Your task to perform on an android device: Open privacy settings Image 0: 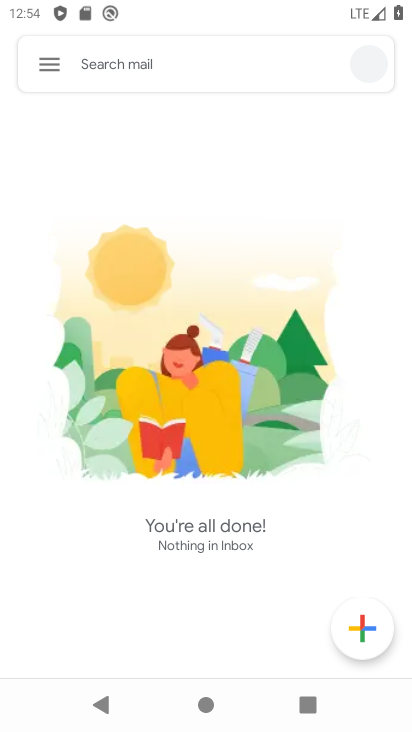
Step 0: press home button
Your task to perform on an android device: Open privacy settings Image 1: 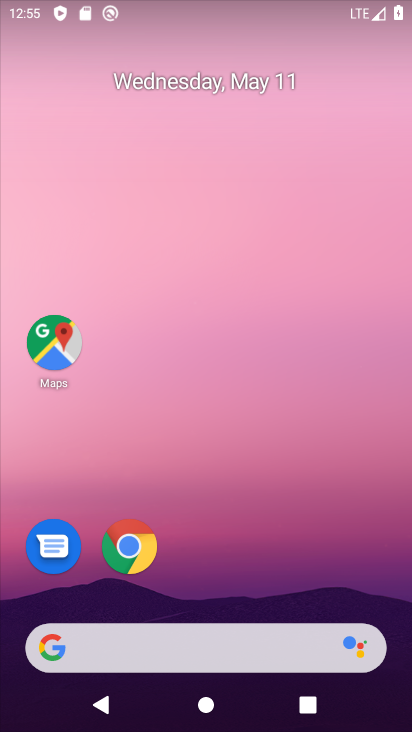
Step 1: drag from (256, 624) to (244, 290)
Your task to perform on an android device: Open privacy settings Image 2: 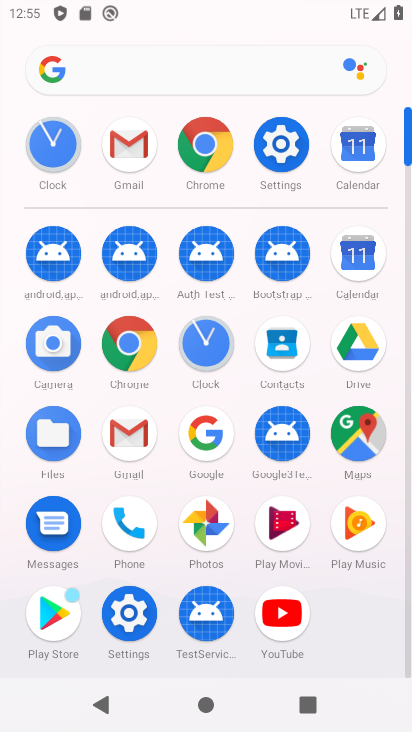
Step 2: click (123, 611)
Your task to perform on an android device: Open privacy settings Image 3: 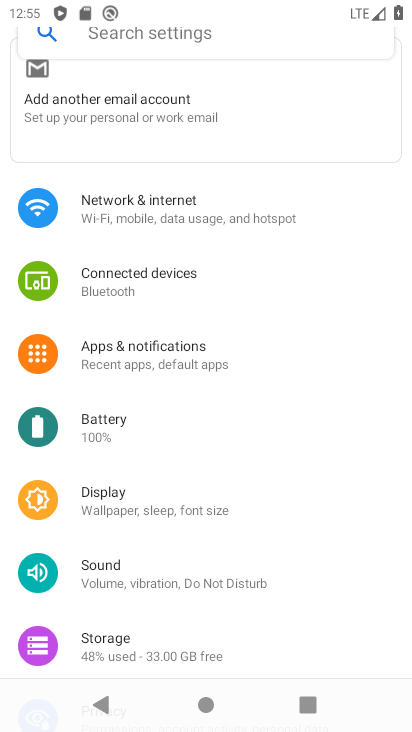
Step 3: click (165, 41)
Your task to perform on an android device: Open privacy settings Image 4: 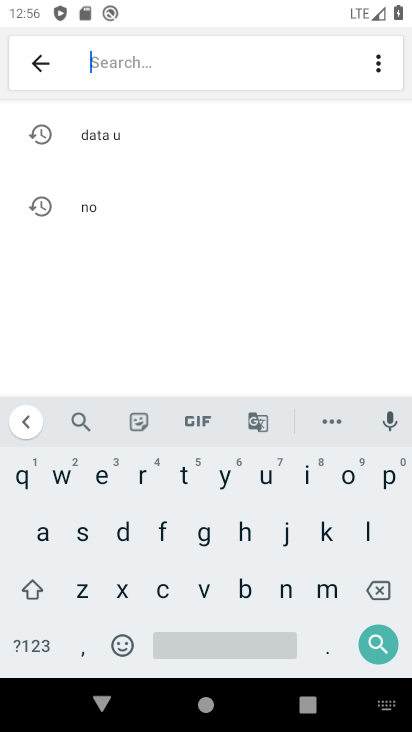
Step 4: click (31, 59)
Your task to perform on an android device: Open privacy settings Image 5: 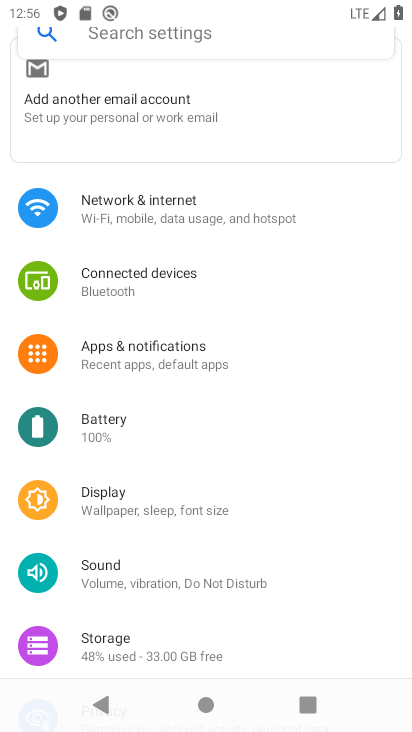
Step 5: drag from (152, 580) to (164, 391)
Your task to perform on an android device: Open privacy settings Image 6: 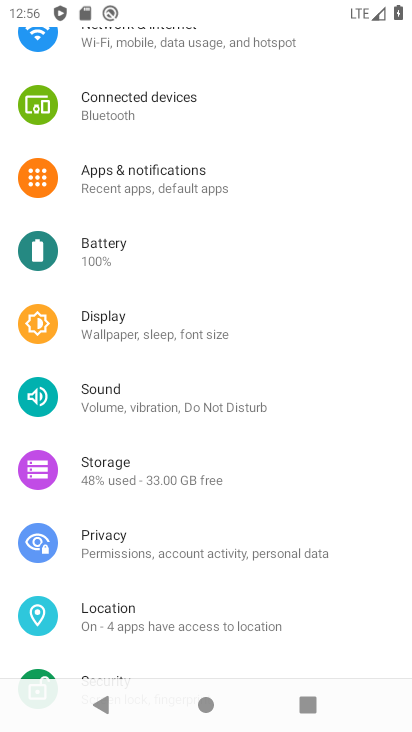
Step 6: drag from (128, 641) to (120, 557)
Your task to perform on an android device: Open privacy settings Image 7: 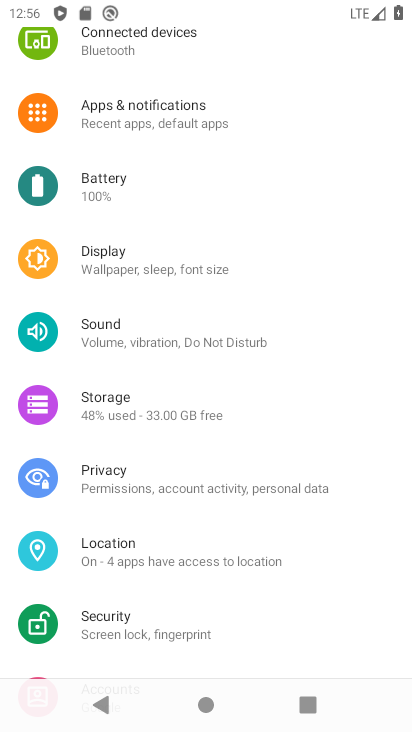
Step 7: drag from (120, 595) to (144, 535)
Your task to perform on an android device: Open privacy settings Image 8: 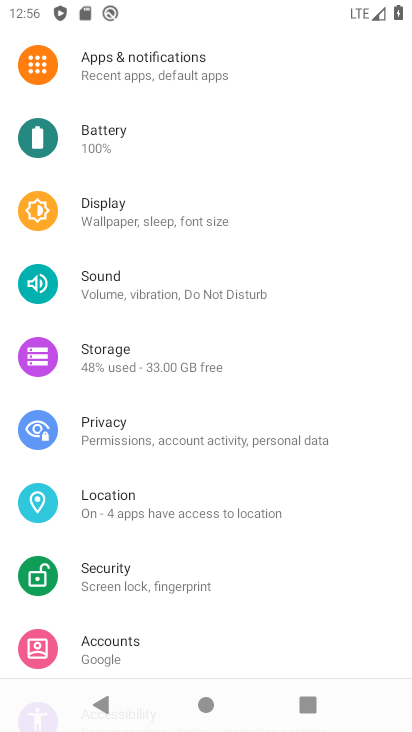
Step 8: click (133, 413)
Your task to perform on an android device: Open privacy settings Image 9: 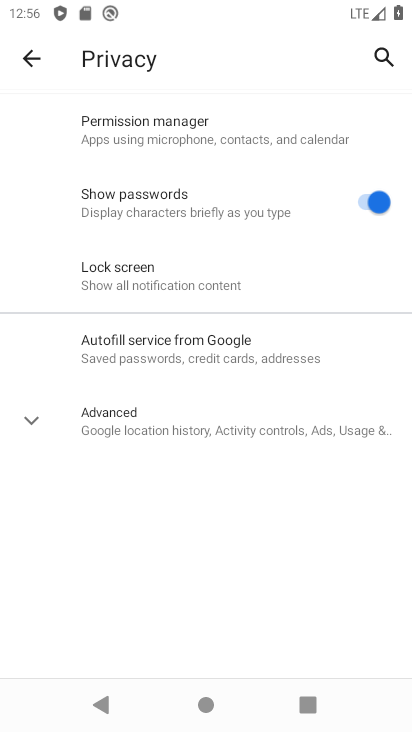
Step 9: task complete